Your task to perform on an android device: toggle notifications settings in the gmail app Image 0: 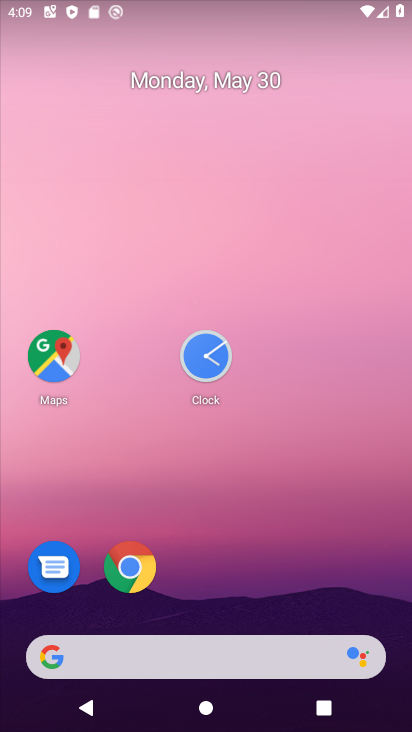
Step 0: drag from (252, 609) to (258, 25)
Your task to perform on an android device: toggle notifications settings in the gmail app Image 1: 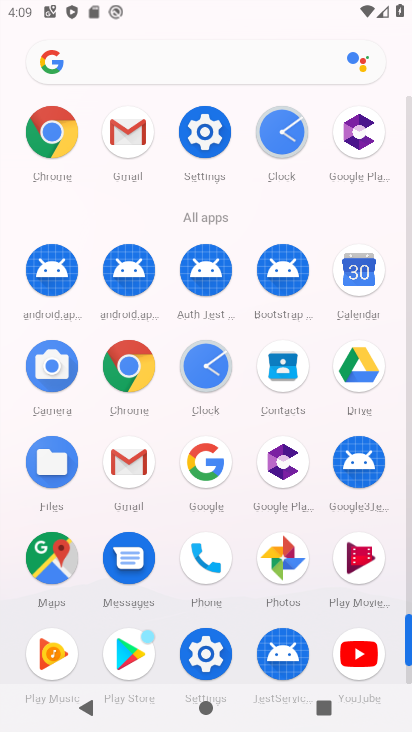
Step 1: click (138, 457)
Your task to perform on an android device: toggle notifications settings in the gmail app Image 2: 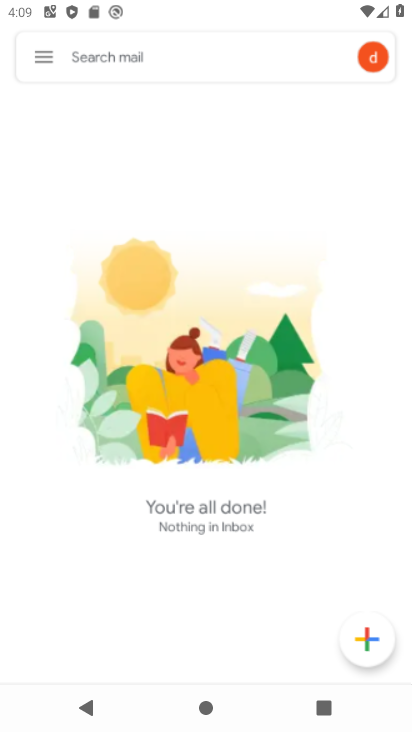
Step 2: click (135, 461)
Your task to perform on an android device: toggle notifications settings in the gmail app Image 3: 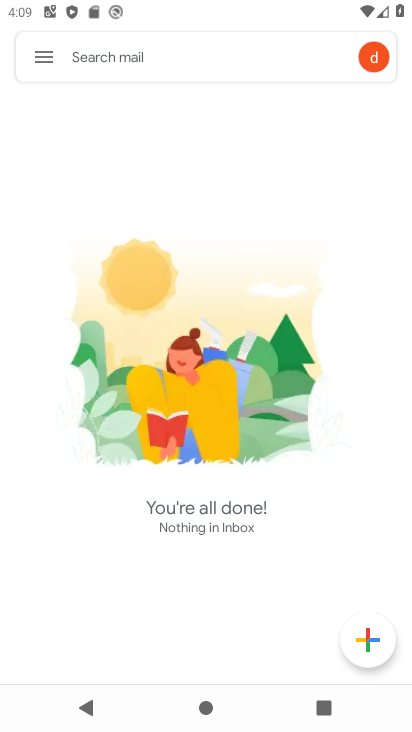
Step 3: click (135, 461)
Your task to perform on an android device: toggle notifications settings in the gmail app Image 4: 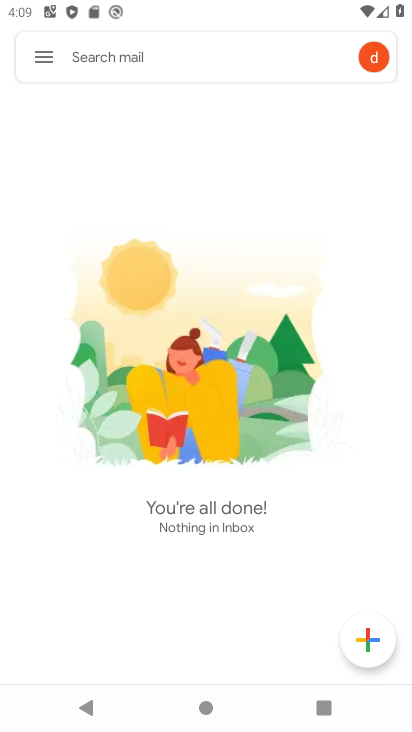
Step 4: click (43, 64)
Your task to perform on an android device: toggle notifications settings in the gmail app Image 5: 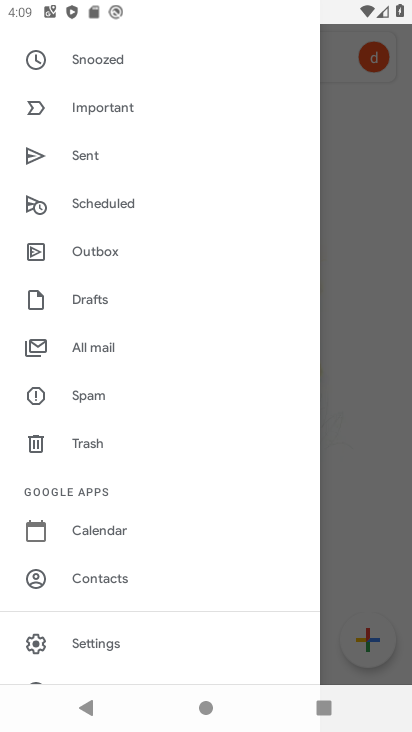
Step 5: click (88, 635)
Your task to perform on an android device: toggle notifications settings in the gmail app Image 6: 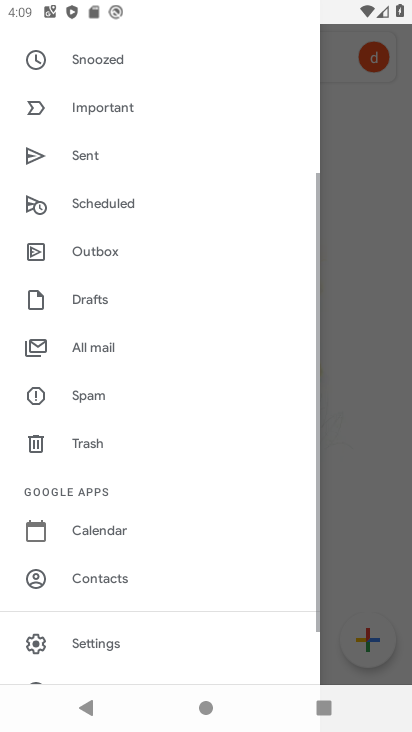
Step 6: click (91, 642)
Your task to perform on an android device: toggle notifications settings in the gmail app Image 7: 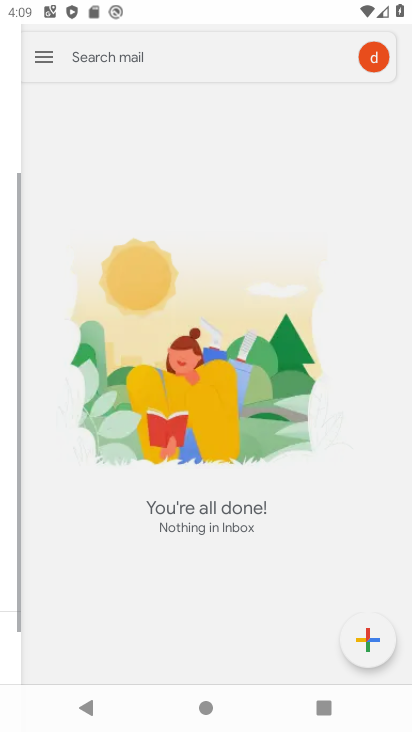
Step 7: click (91, 642)
Your task to perform on an android device: toggle notifications settings in the gmail app Image 8: 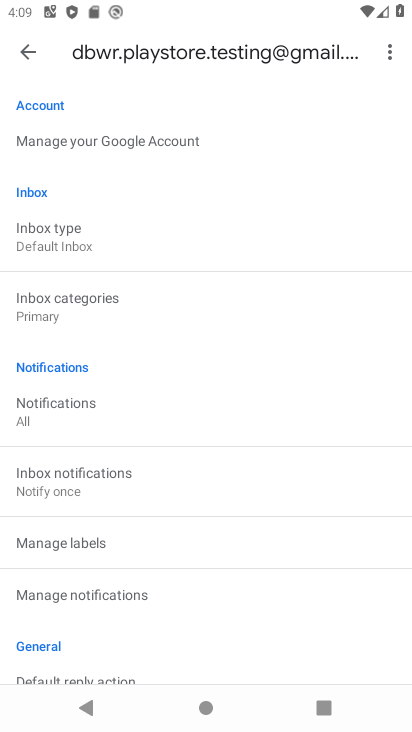
Step 8: click (54, 408)
Your task to perform on an android device: toggle notifications settings in the gmail app Image 9: 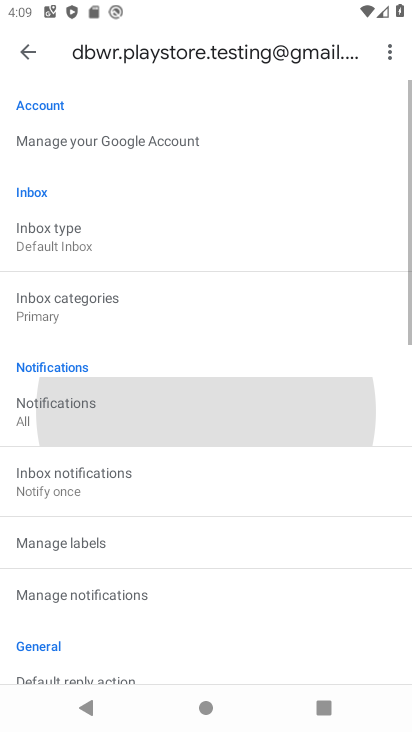
Step 9: click (55, 408)
Your task to perform on an android device: toggle notifications settings in the gmail app Image 10: 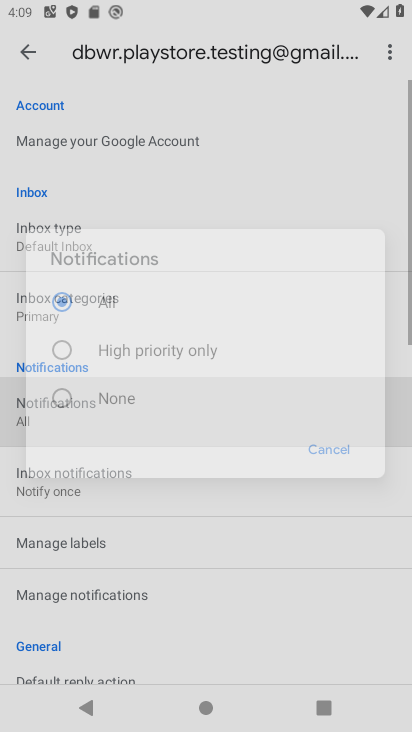
Step 10: click (61, 408)
Your task to perform on an android device: toggle notifications settings in the gmail app Image 11: 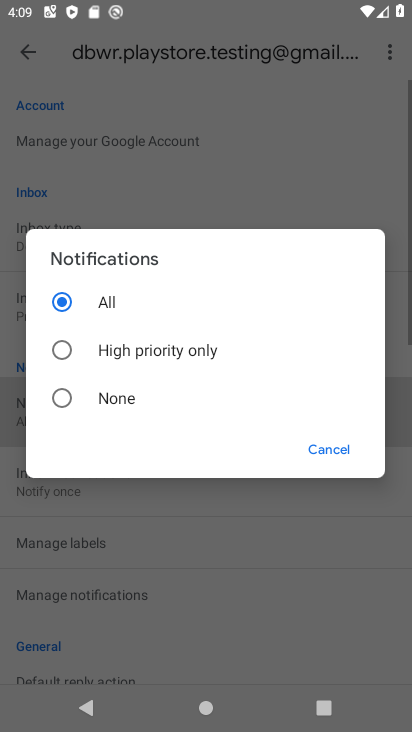
Step 11: click (64, 406)
Your task to perform on an android device: toggle notifications settings in the gmail app Image 12: 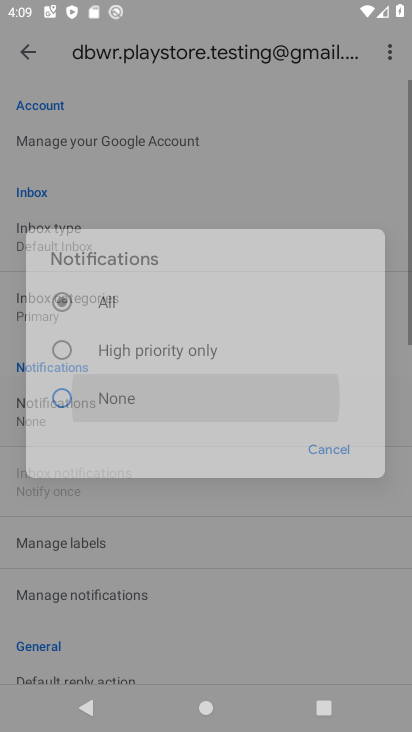
Step 12: click (63, 404)
Your task to perform on an android device: toggle notifications settings in the gmail app Image 13: 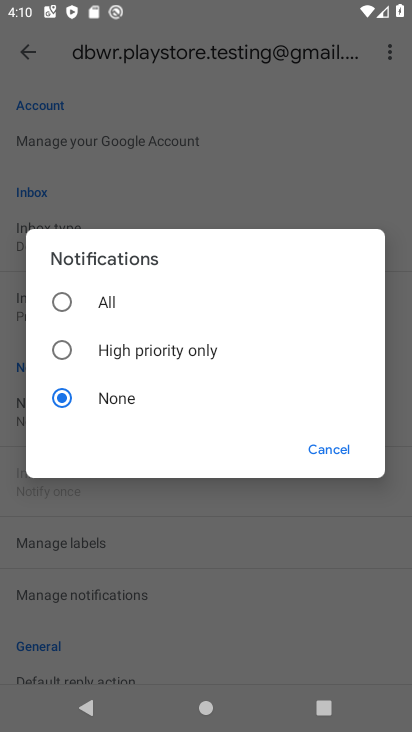
Step 13: click (68, 351)
Your task to perform on an android device: toggle notifications settings in the gmail app Image 14: 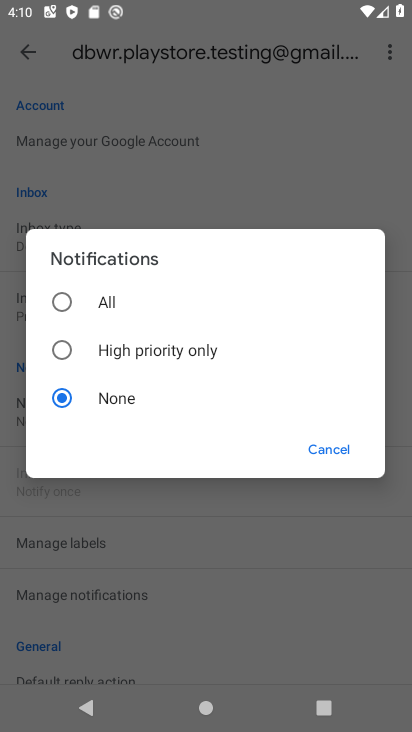
Step 14: click (68, 351)
Your task to perform on an android device: toggle notifications settings in the gmail app Image 15: 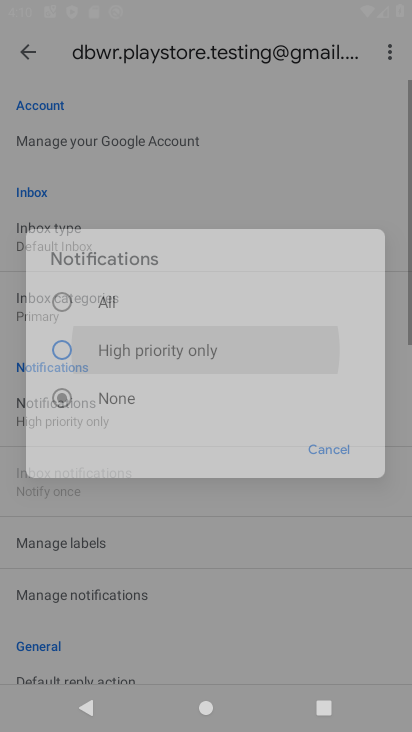
Step 15: click (68, 350)
Your task to perform on an android device: toggle notifications settings in the gmail app Image 16: 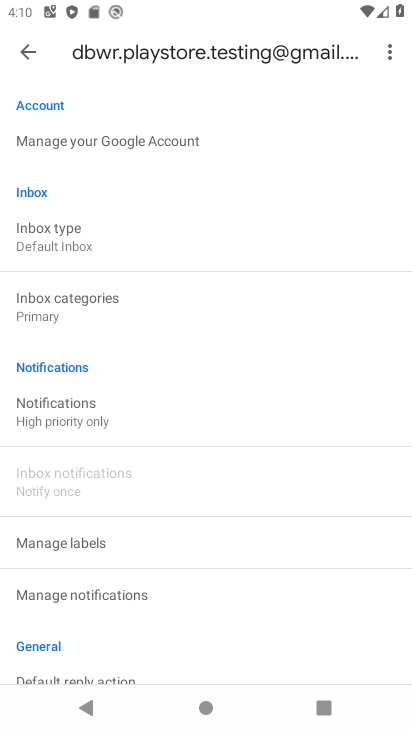
Step 16: task complete